Your task to perform on an android device: turn pop-ups off in chrome Image 0: 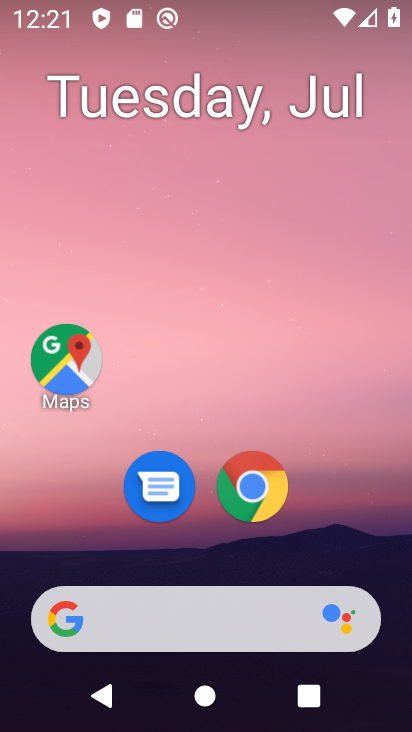
Step 0: drag from (355, 522) to (372, 110)
Your task to perform on an android device: turn pop-ups off in chrome Image 1: 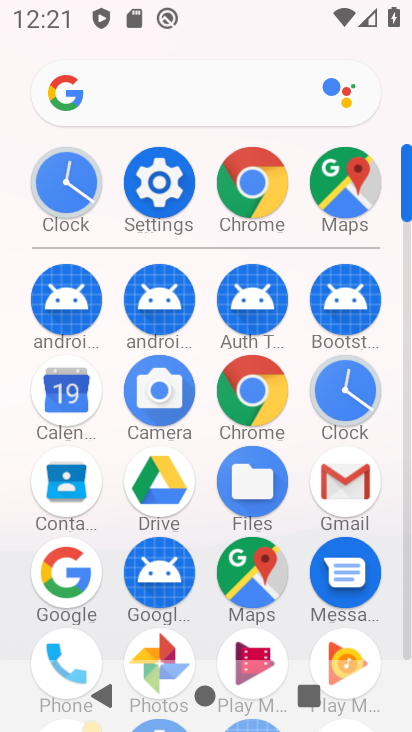
Step 1: click (261, 390)
Your task to perform on an android device: turn pop-ups off in chrome Image 2: 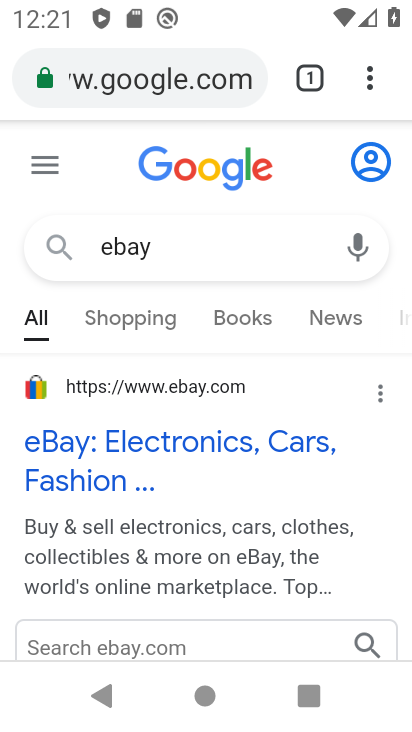
Step 2: click (368, 89)
Your task to perform on an android device: turn pop-ups off in chrome Image 3: 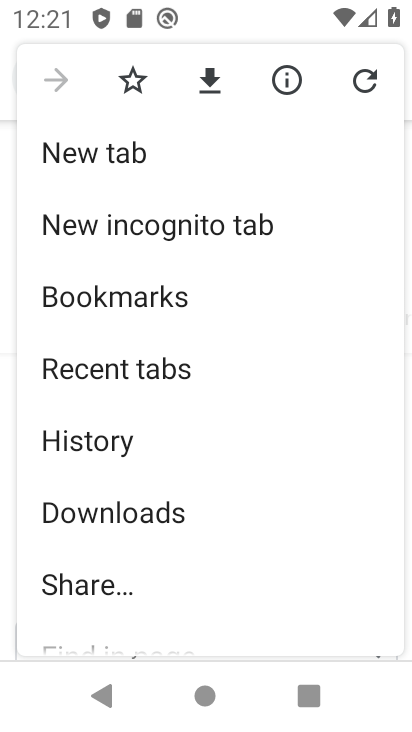
Step 3: drag from (307, 470) to (321, 383)
Your task to perform on an android device: turn pop-ups off in chrome Image 4: 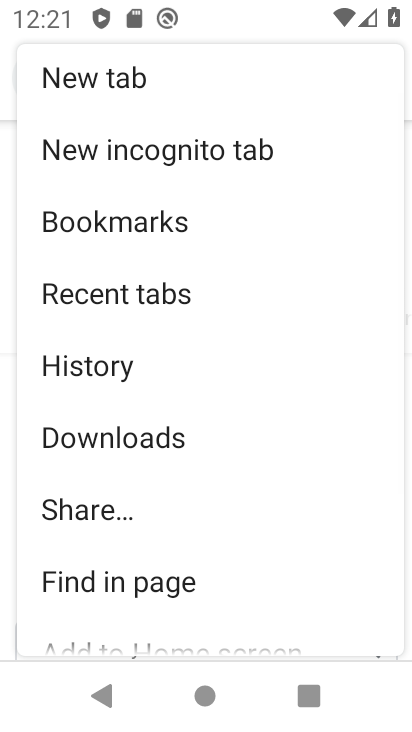
Step 4: drag from (286, 510) to (302, 409)
Your task to perform on an android device: turn pop-ups off in chrome Image 5: 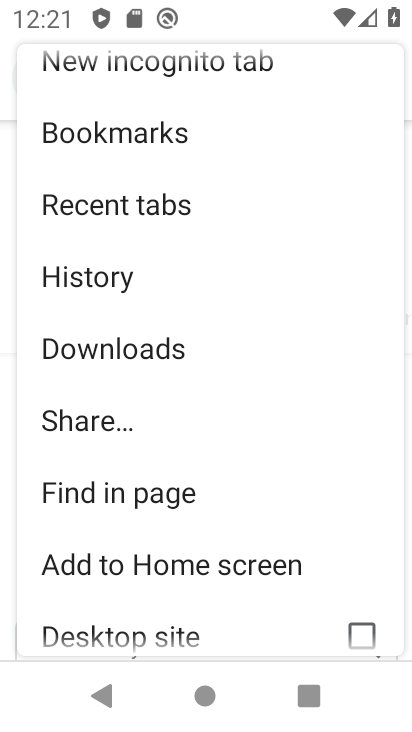
Step 5: drag from (314, 507) to (320, 397)
Your task to perform on an android device: turn pop-ups off in chrome Image 6: 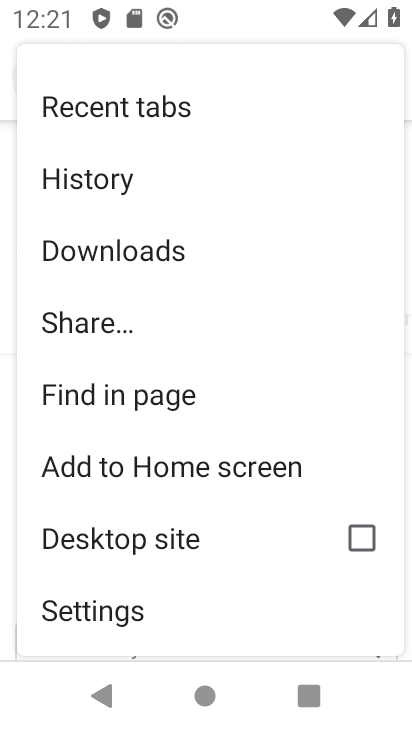
Step 6: drag from (272, 546) to (286, 384)
Your task to perform on an android device: turn pop-ups off in chrome Image 7: 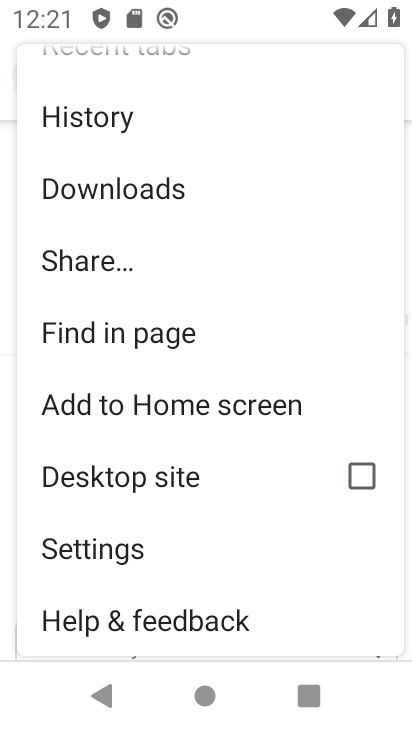
Step 7: click (157, 557)
Your task to perform on an android device: turn pop-ups off in chrome Image 8: 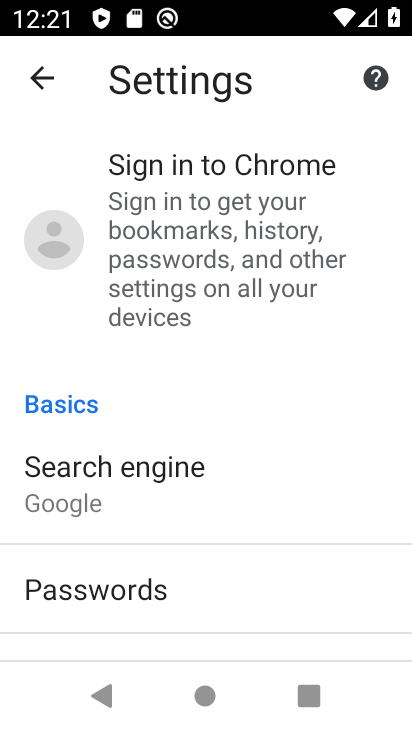
Step 8: drag from (232, 536) to (248, 418)
Your task to perform on an android device: turn pop-ups off in chrome Image 9: 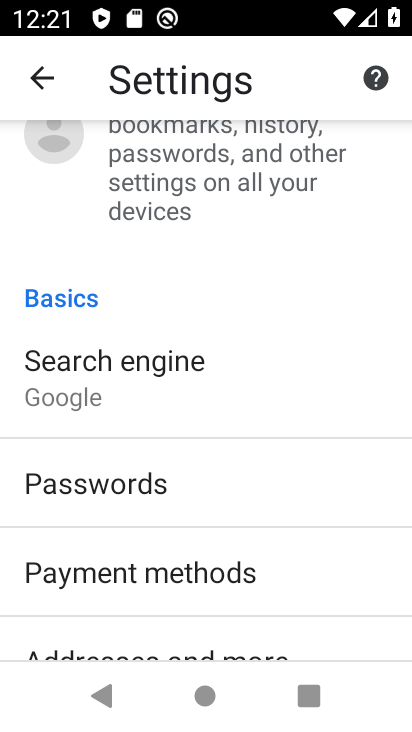
Step 9: drag from (327, 581) to (348, 432)
Your task to perform on an android device: turn pop-ups off in chrome Image 10: 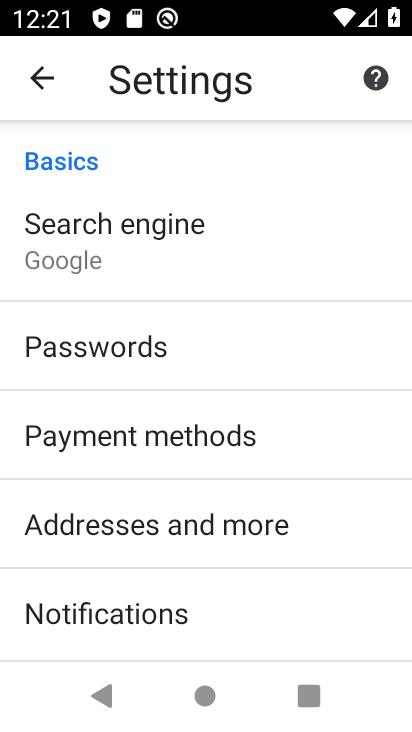
Step 10: drag from (337, 557) to (343, 444)
Your task to perform on an android device: turn pop-ups off in chrome Image 11: 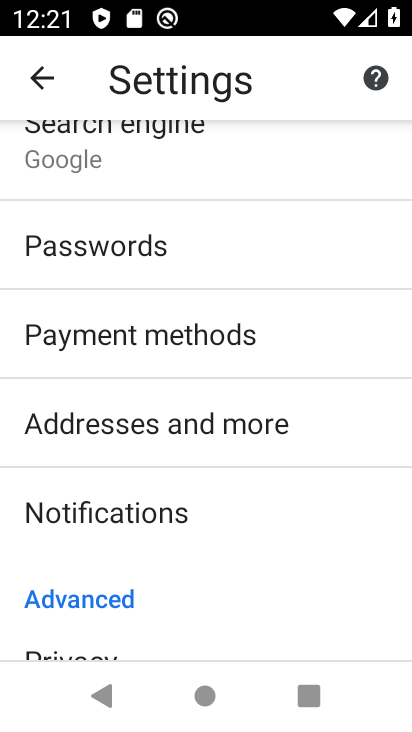
Step 11: drag from (326, 564) to (334, 447)
Your task to perform on an android device: turn pop-ups off in chrome Image 12: 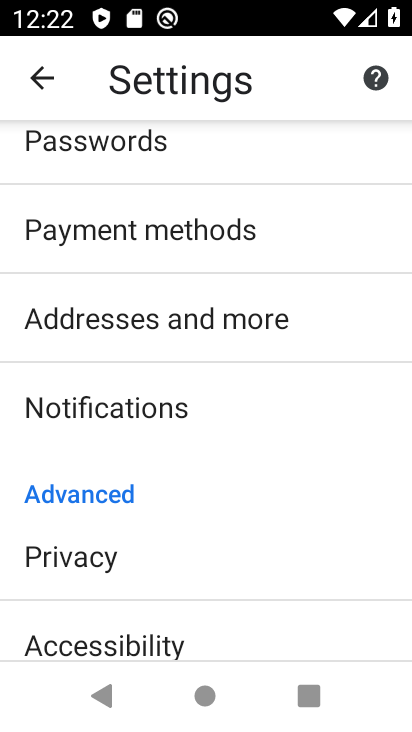
Step 12: drag from (336, 527) to (336, 406)
Your task to perform on an android device: turn pop-ups off in chrome Image 13: 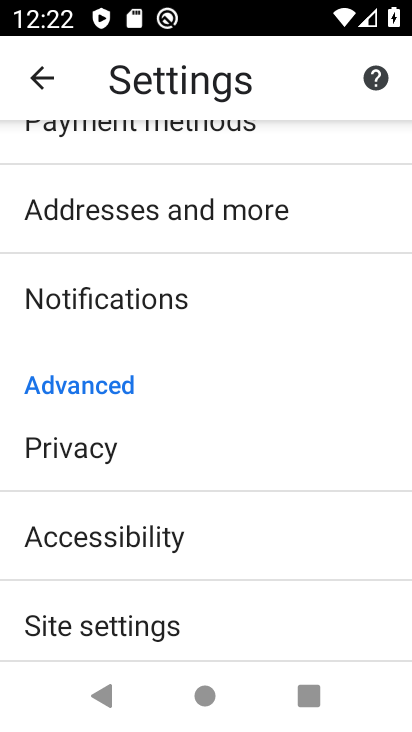
Step 13: drag from (325, 532) to (327, 409)
Your task to perform on an android device: turn pop-ups off in chrome Image 14: 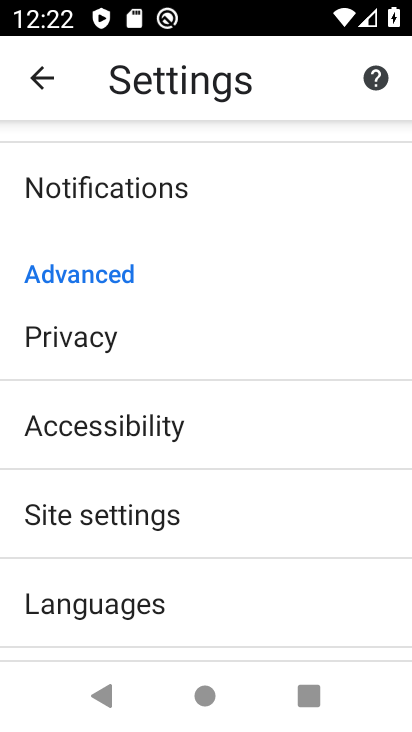
Step 14: drag from (314, 557) to (335, 421)
Your task to perform on an android device: turn pop-ups off in chrome Image 15: 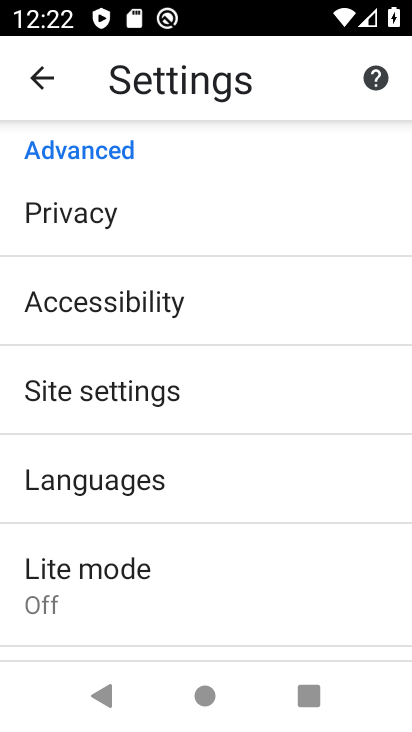
Step 15: drag from (302, 576) to (309, 462)
Your task to perform on an android device: turn pop-ups off in chrome Image 16: 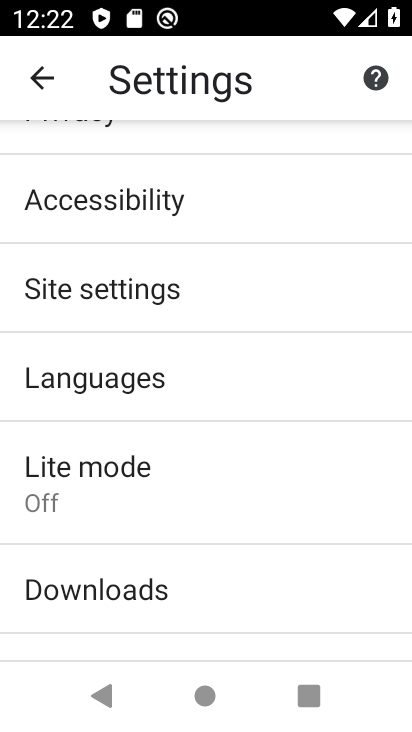
Step 16: drag from (296, 577) to (309, 457)
Your task to perform on an android device: turn pop-ups off in chrome Image 17: 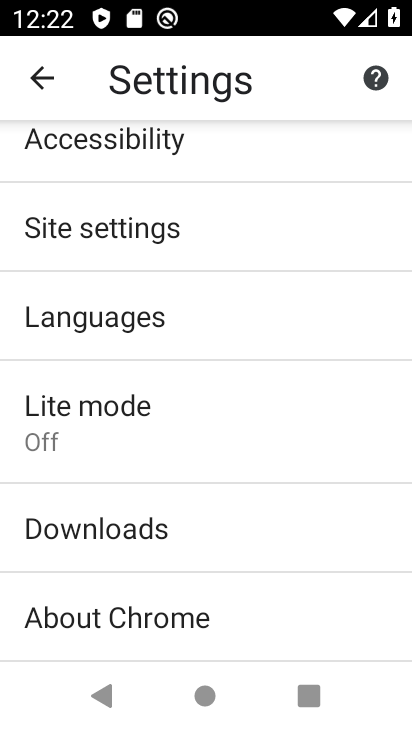
Step 17: drag from (303, 567) to (303, 403)
Your task to perform on an android device: turn pop-ups off in chrome Image 18: 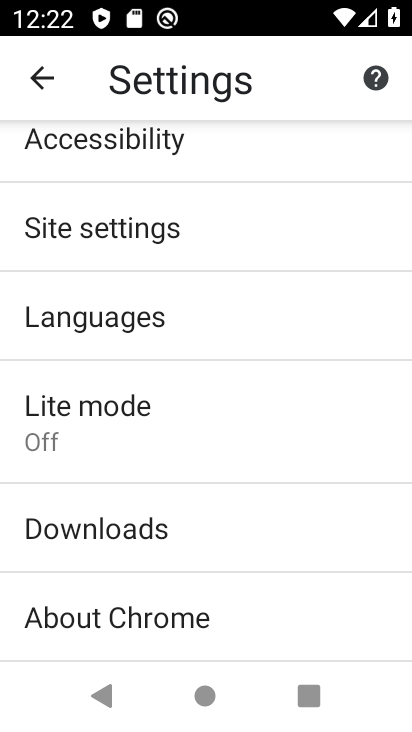
Step 18: click (278, 240)
Your task to perform on an android device: turn pop-ups off in chrome Image 19: 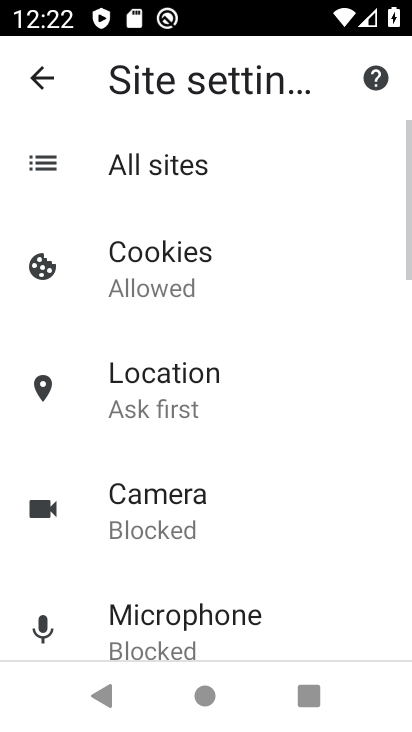
Step 19: drag from (314, 493) to (319, 409)
Your task to perform on an android device: turn pop-ups off in chrome Image 20: 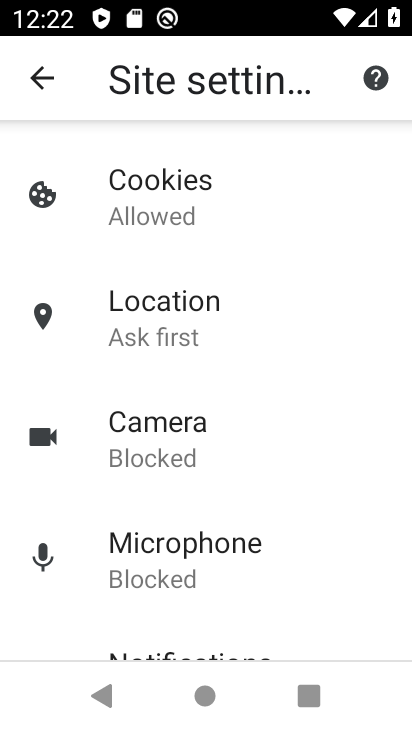
Step 20: drag from (313, 520) to (318, 421)
Your task to perform on an android device: turn pop-ups off in chrome Image 21: 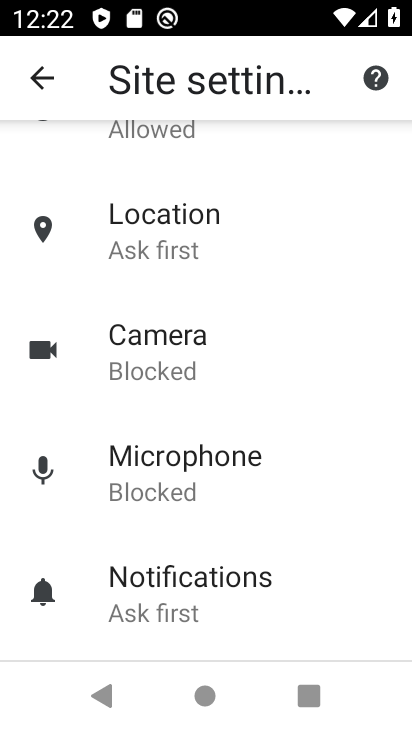
Step 21: drag from (319, 547) to (325, 449)
Your task to perform on an android device: turn pop-ups off in chrome Image 22: 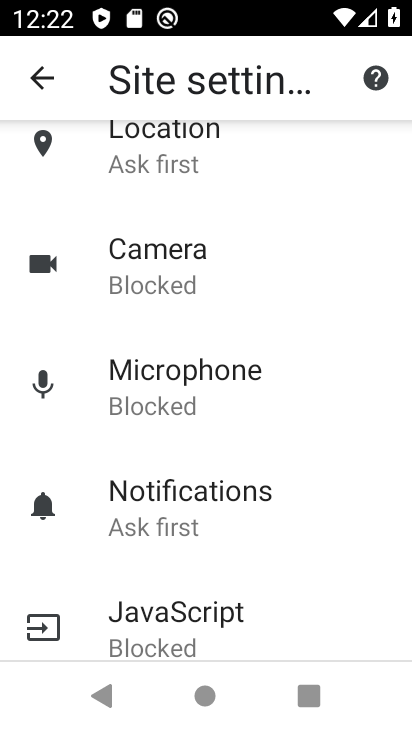
Step 22: drag from (326, 534) to (335, 439)
Your task to perform on an android device: turn pop-ups off in chrome Image 23: 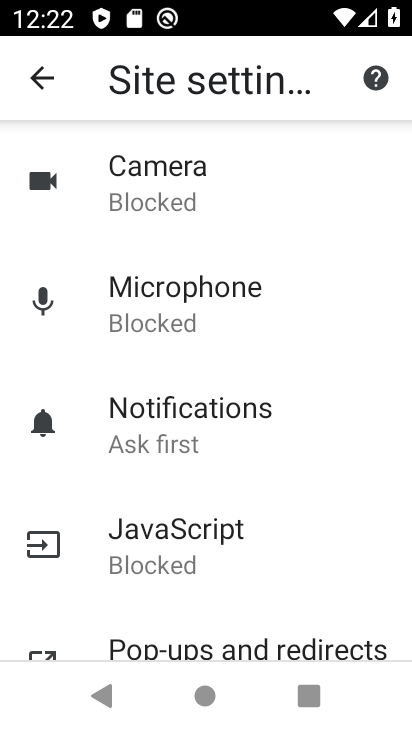
Step 23: drag from (328, 534) to (334, 426)
Your task to perform on an android device: turn pop-ups off in chrome Image 24: 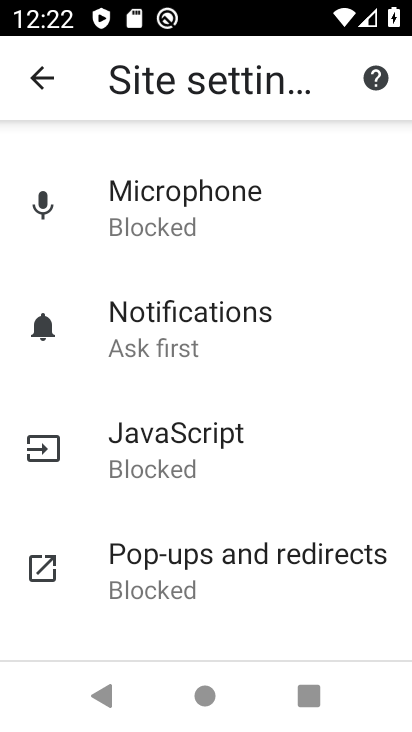
Step 24: drag from (324, 509) to (326, 399)
Your task to perform on an android device: turn pop-ups off in chrome Image 25: 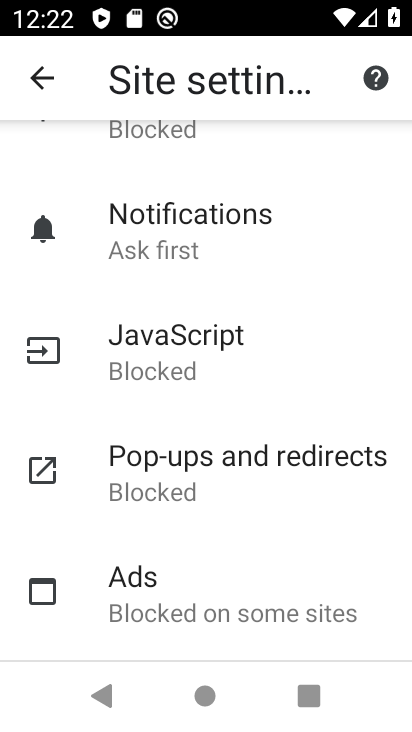
Step 25: drag from (333, 521) to (345, 398)
Your task to perform on an android device: turn pop-ups off in chrome Image 26: 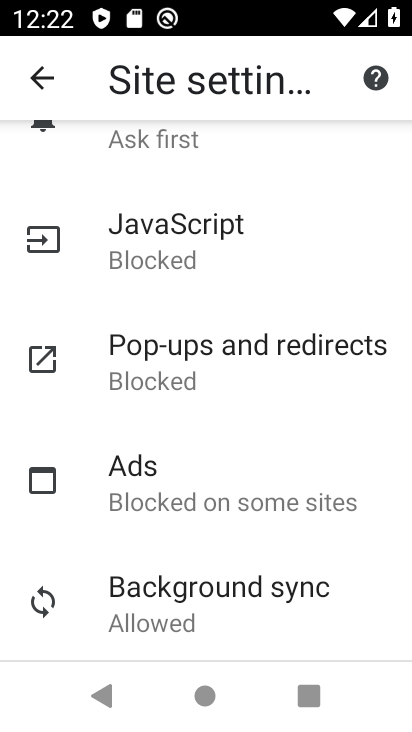
Step 26: click (332, 388)
Your task to perform on an android device: turn pop-ups off in chrome Image 27: 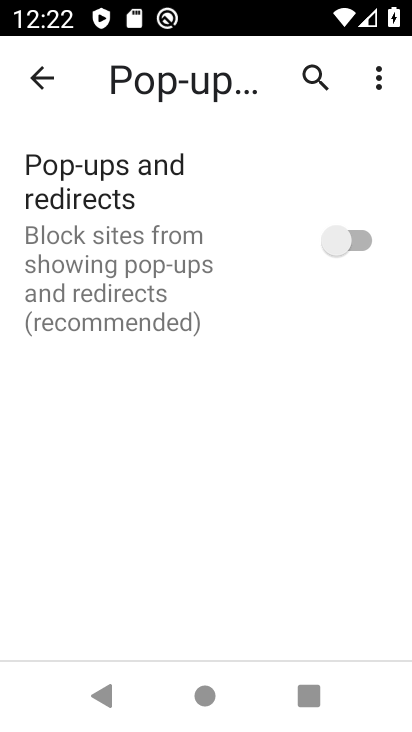
Step 27: task complete